Your task to perform on an android device: Do I have any events tomorrow? Image 0: 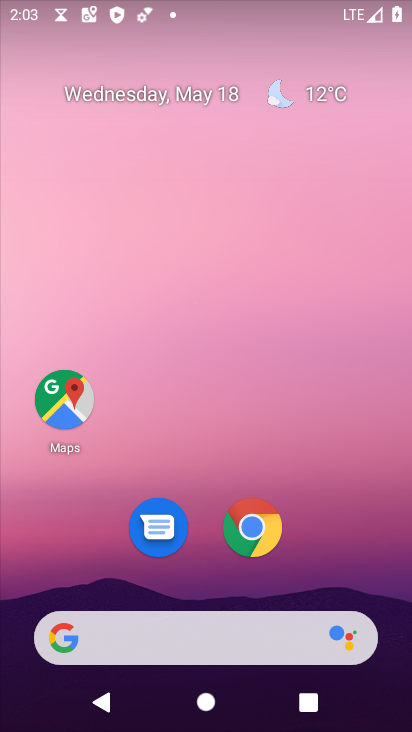
Step 0: click (155, 96)
Your task to perform on an android device: Do I have any events tomorrow? Image 1: 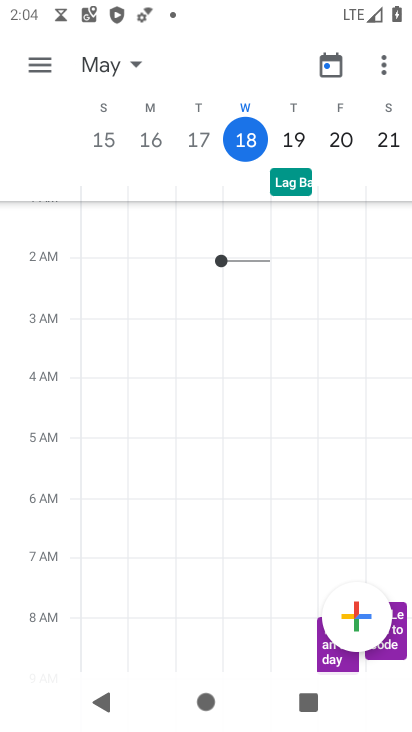
Step 1: task complete